Your task to perform on an android device: open wifi settings Image 0: 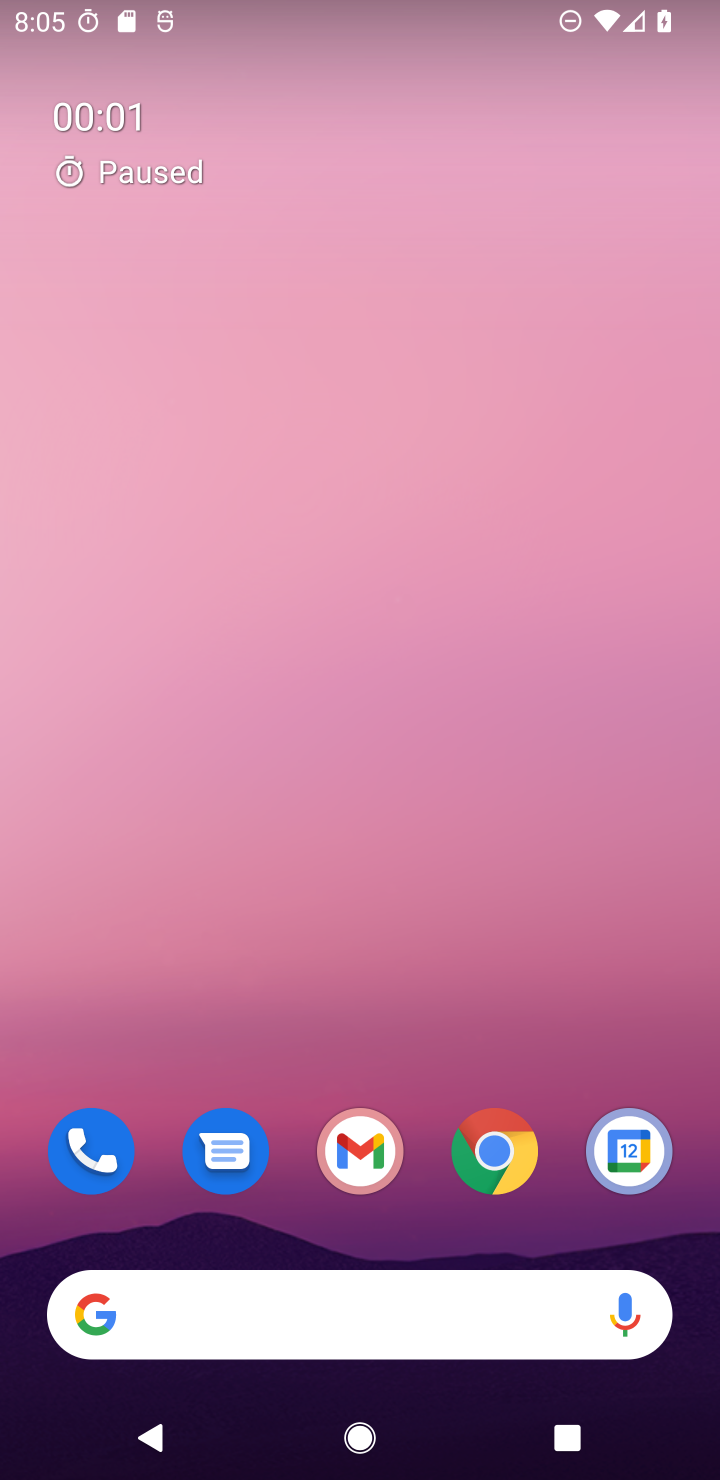
Step 0: drag from (470, 575) to (592, 29)
Your task to perform on an android device: open wifi settings Image 1: 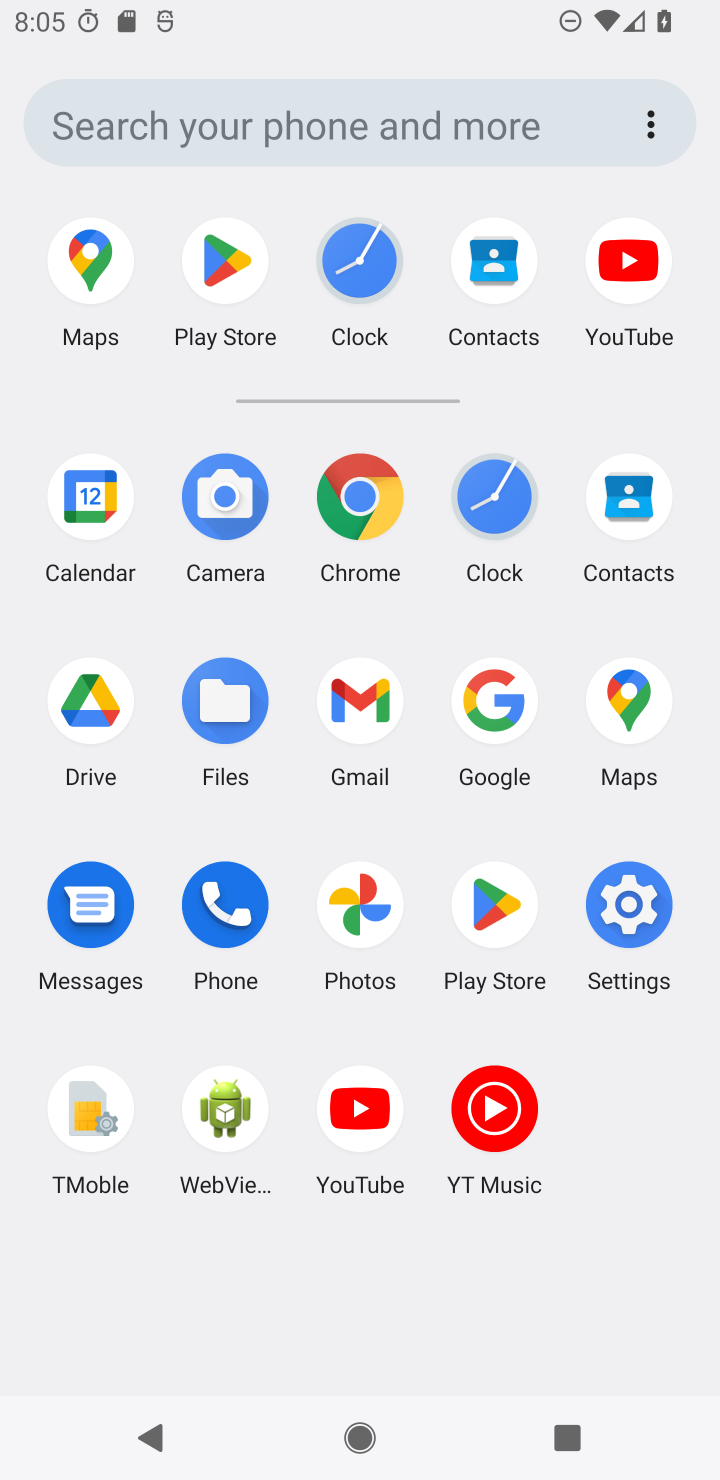
Step 1: click (652, 893)
Your task to perform on an android device: open wifi settings Image 2: 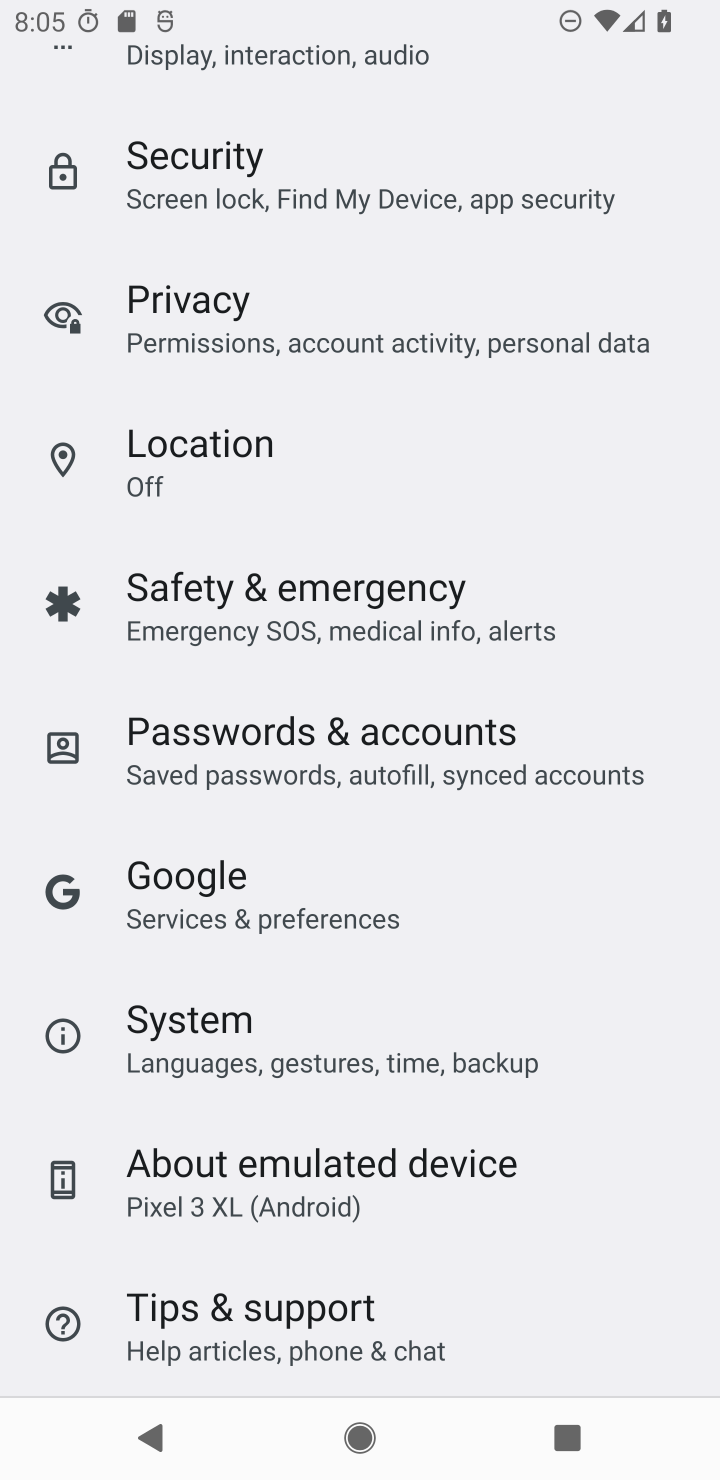
Step 2: drag from (500, 275) to (362, 1197)
Your task to perform on an android device: open wifi settings Image 3: 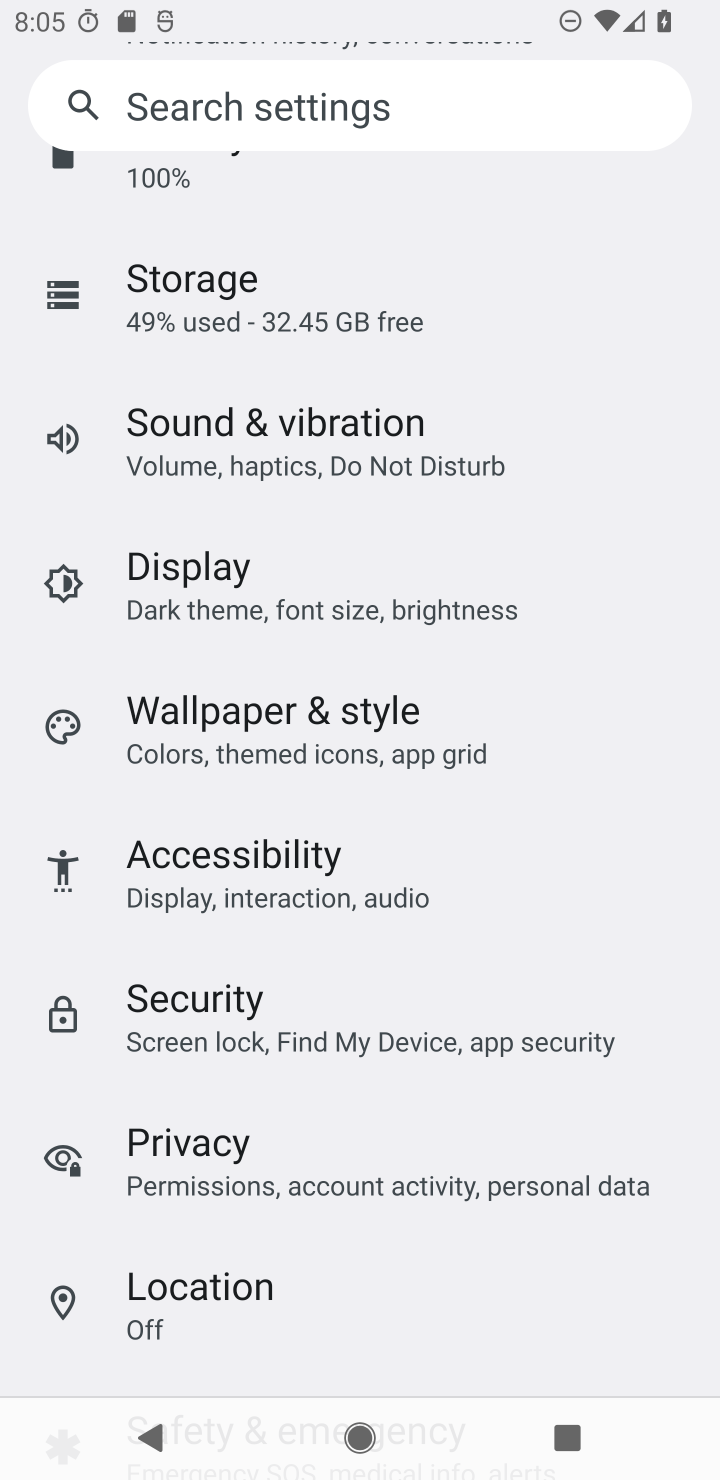
Step 3: drag from (610, 304) to (473, 1121)
Your task to perform on an android device: open wifi settings Image 4: 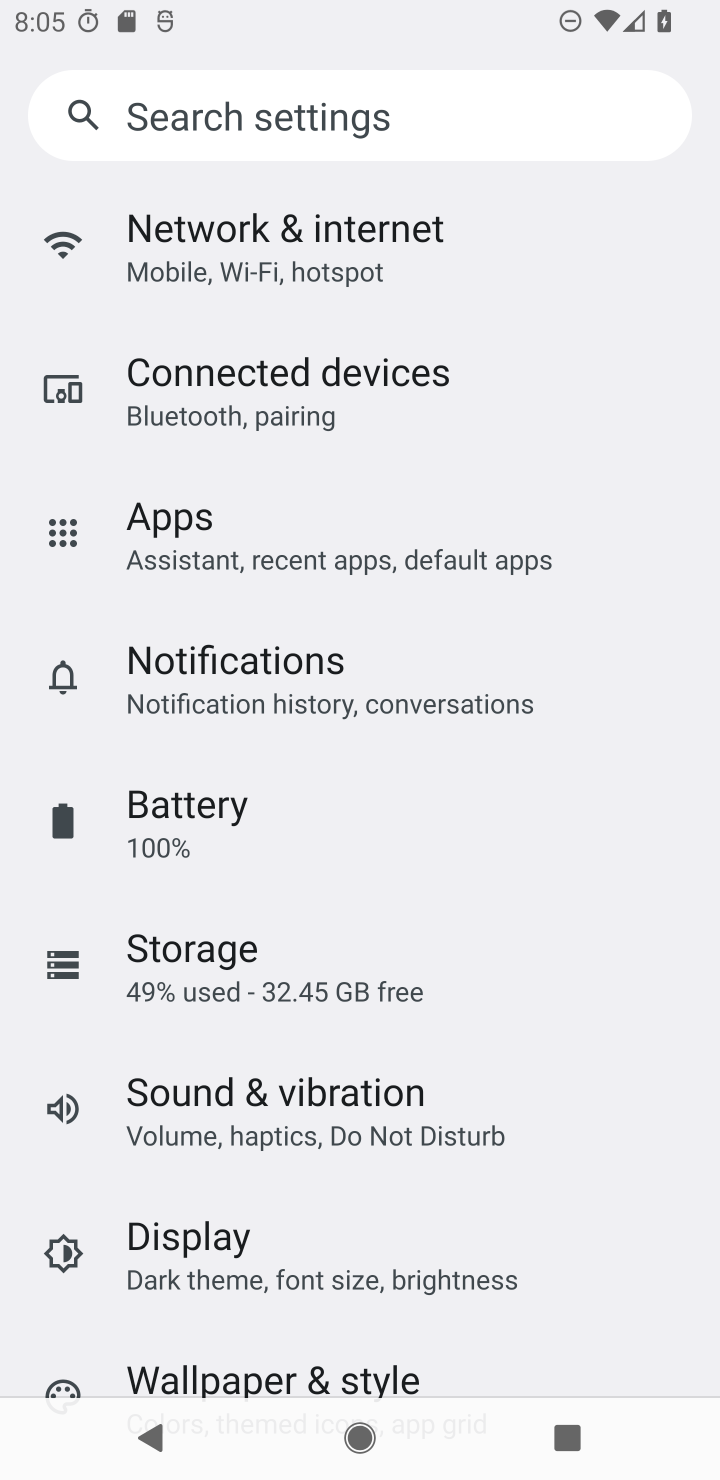
Step 4: click (335, 243)
Your task to perform on an android device: open wifi settings Image 5: 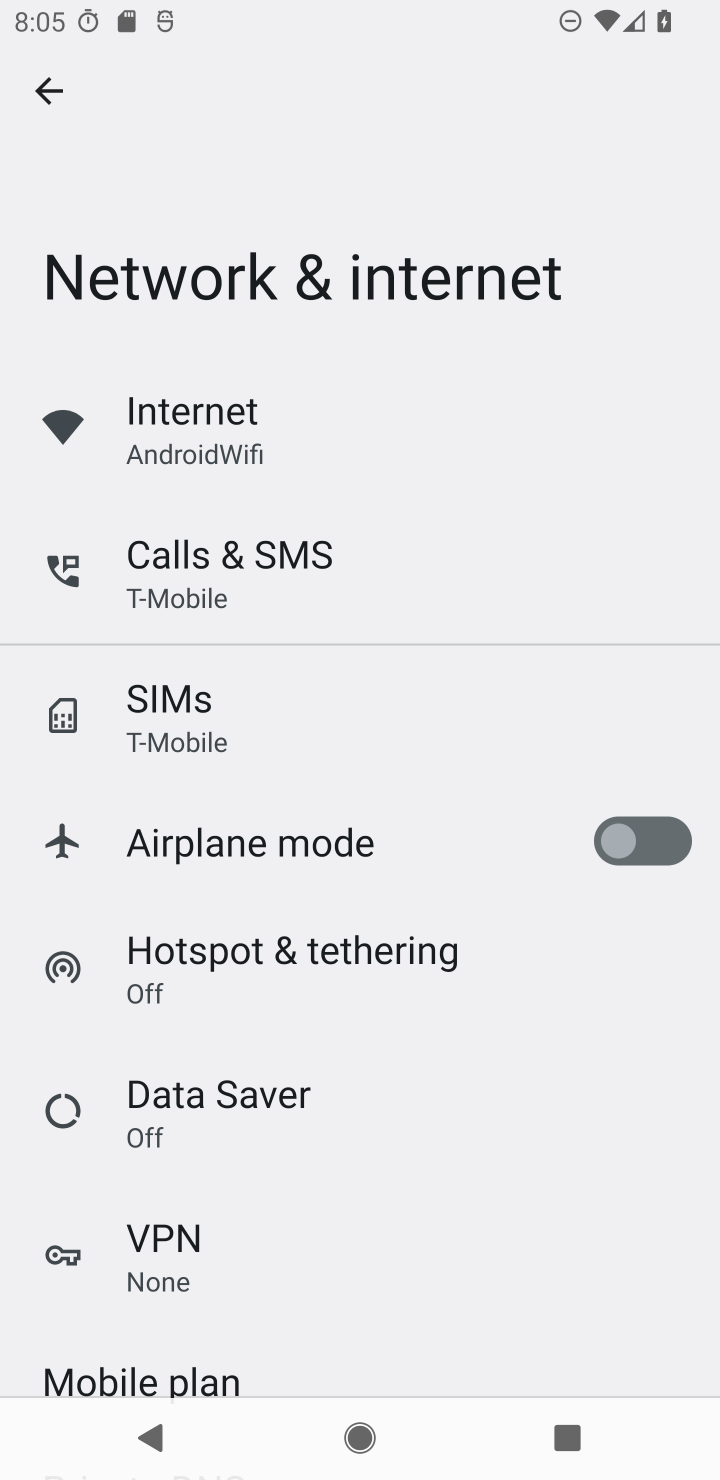
Step 5: click (265, 420)
Your task to perform on an android device: open wifi settings Image 6: 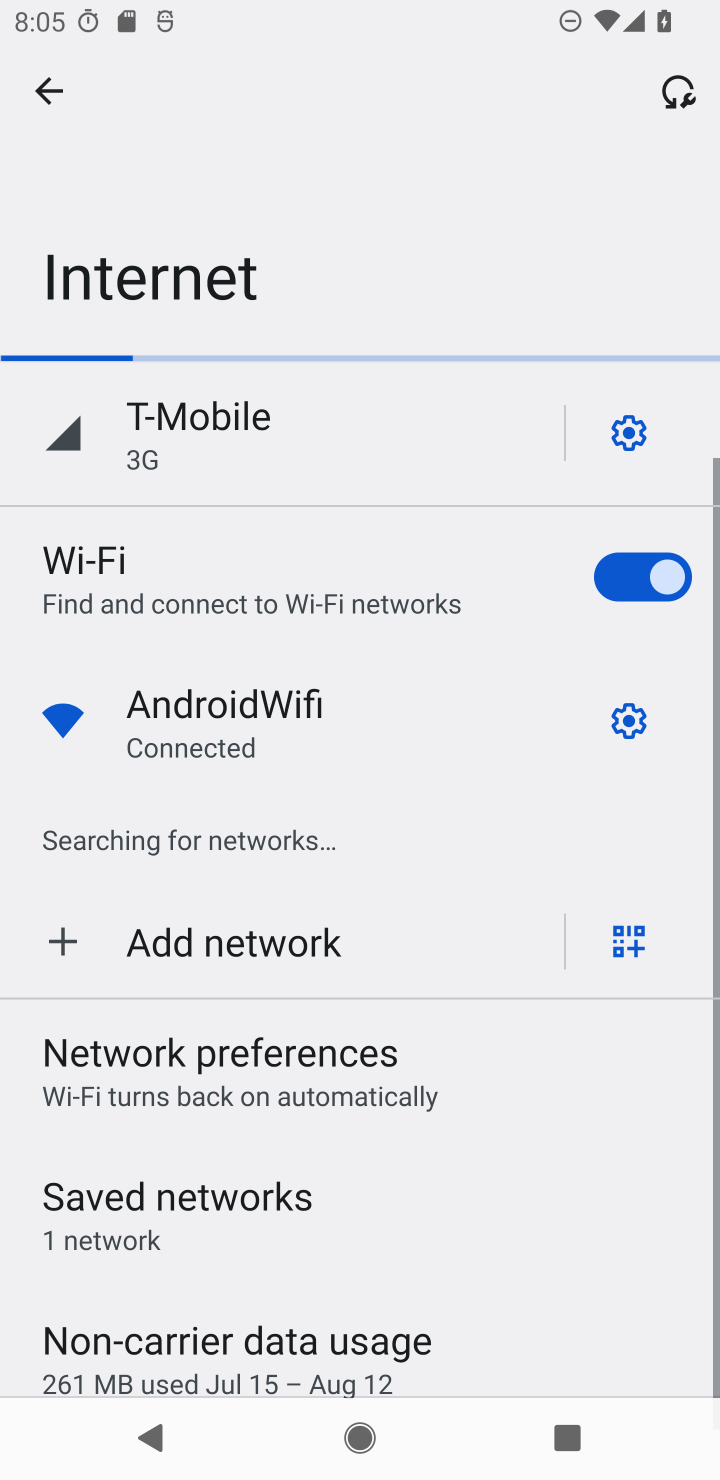
Step 6: click (636, 725)
Your task to perform on an android device: open wifi settings Image 7: 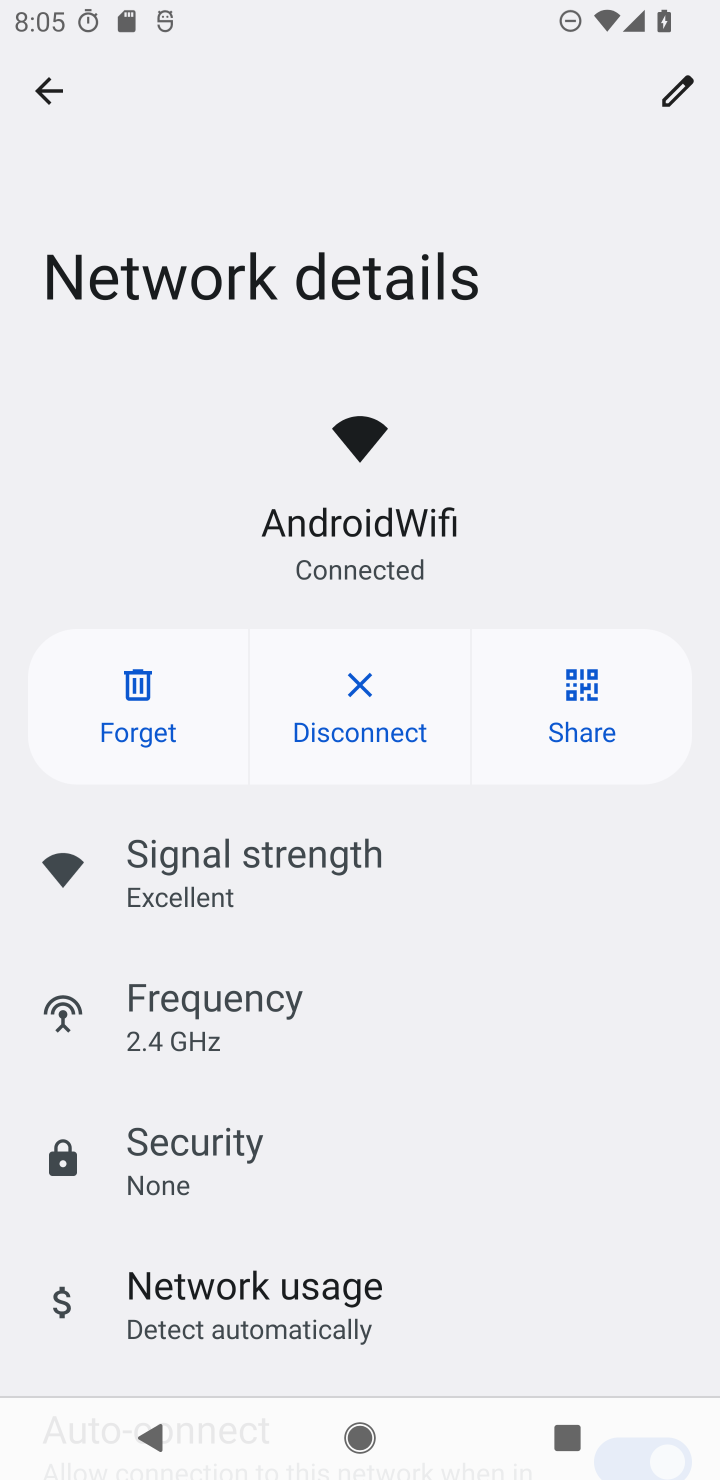
Step 7: task complete